Your task to perform on an android device: Open settings Image 0: 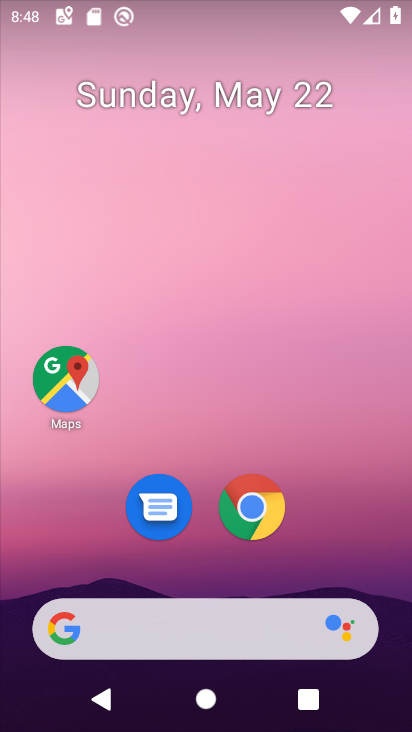
Step 0: drag from (201, 270) to (203, 2)
Your task to perform on an android device: Open settings Image 1: 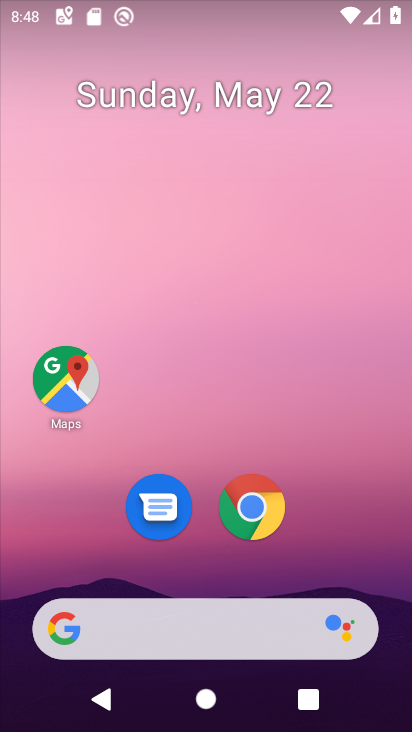
Step 1: drag from (201, 573) to (267, 56)
Your task to perform on an android device: Open settings Image 2: 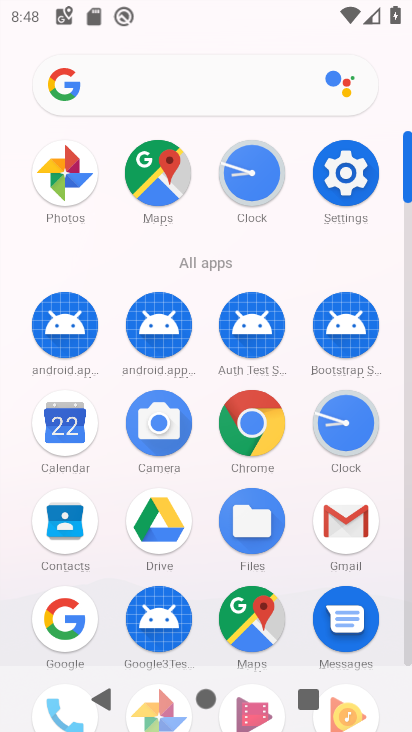
Step 2: click (347, 175)
Your task to perform on an android device: Open settings Image 3: 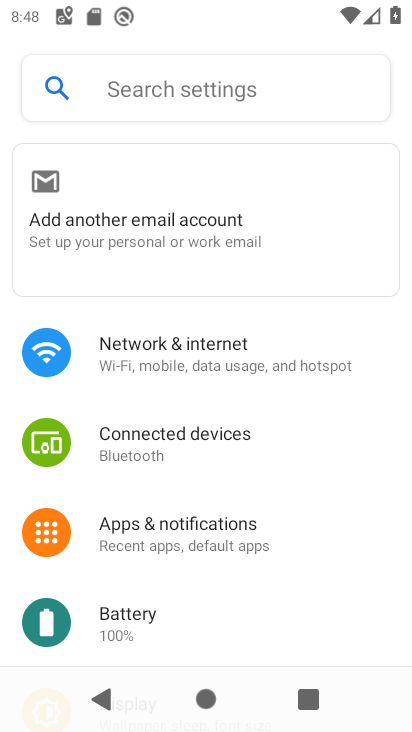
Step 3: task complete